Your task to perform on an android device: toggle wifi Image 0: 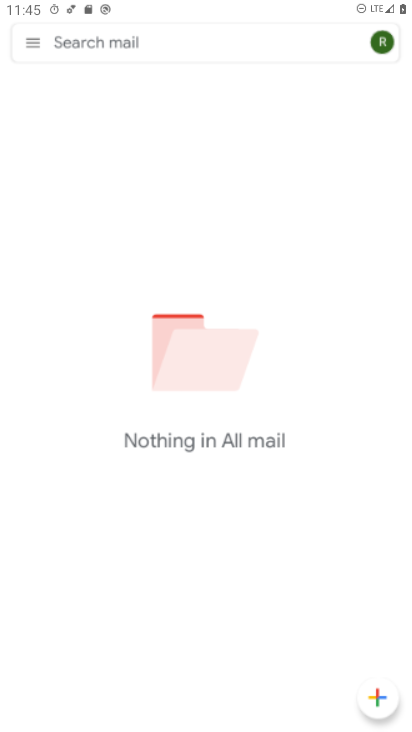
Step 0: press home button
Your task to perform on an android device: toggle wifi Image 1: 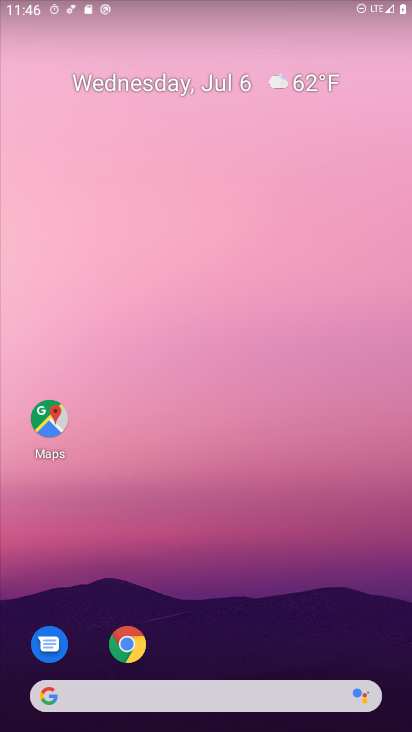
Step 1: drag from (197, 0) to (230, 425)
Your task to perform on an android device: toggle wifi Image 2: 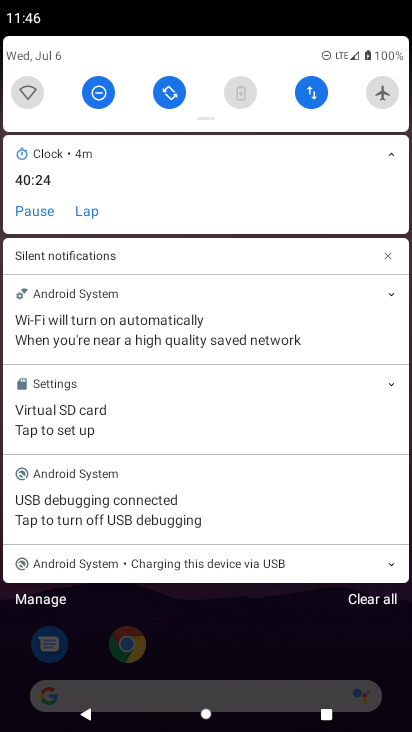
Step 2: drag from (257, 616) to (275, 4)
Your task to perform on an android device: toggle wifi Image 3: 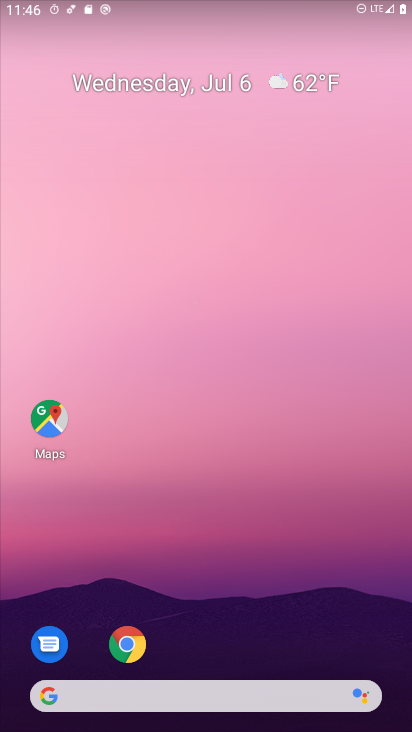
Step 3: drag from (194, 60) to (261, 502)
Your task to perform on an android device: toggle wifi Image 4: 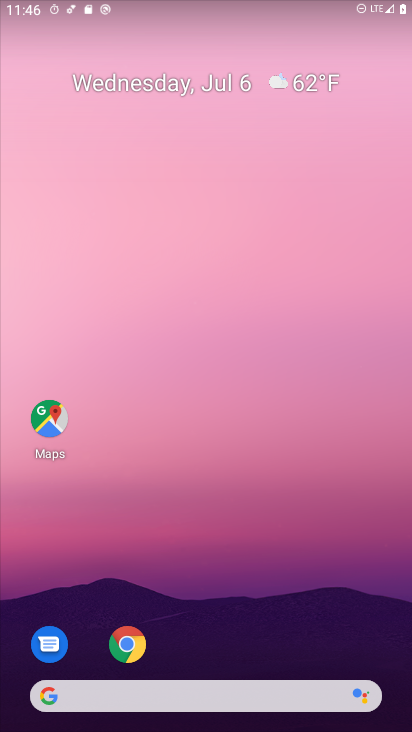
Step 4: drag from (192, 3) to (238, 584)
Your task to perform on an android device: toggle wifi Image 5: 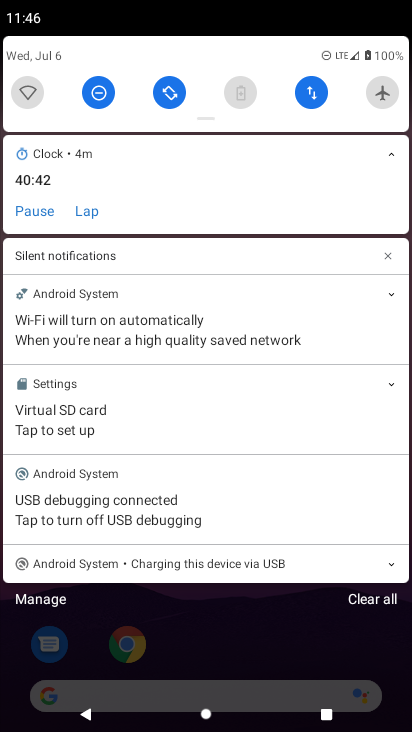
Step 5: click (18, 89)
Your task to perform on an android device: toggle wifi Image 6: 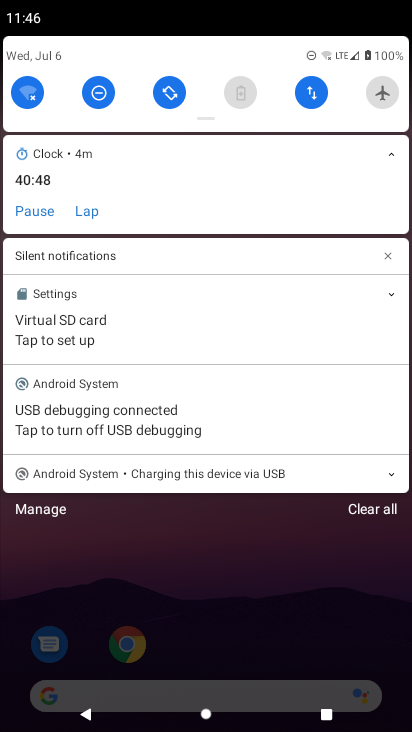
Step 6: task complete